Your task to perform on an android device: Open Youtube and go to "Your channel" Image 0: 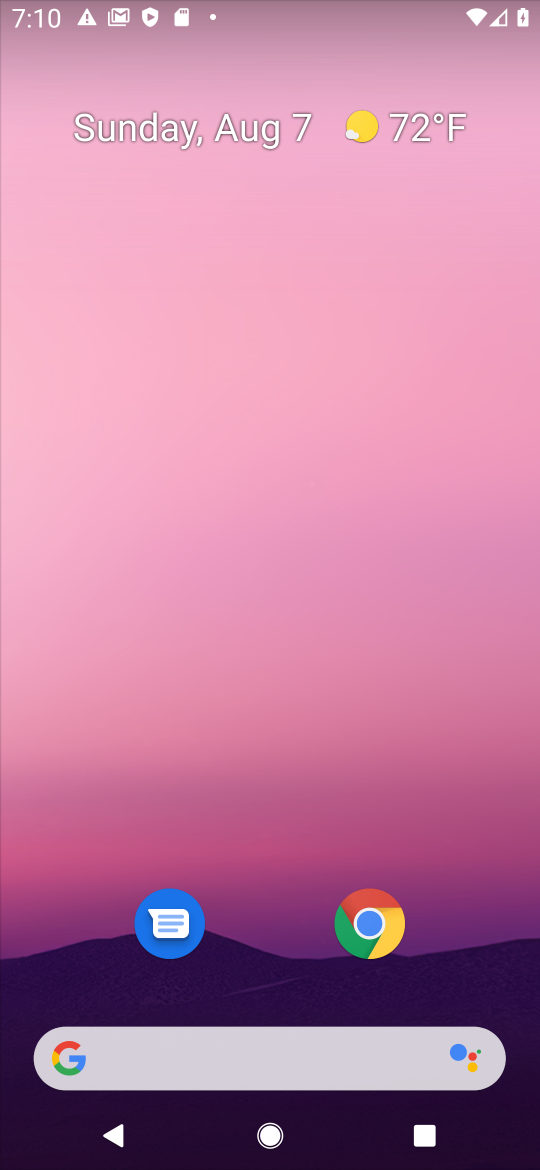
Step 0: drag from (503, 980) to (231, 45)
Your task to perform on an android device: Open Youtube and go to "Your channel" Image 1: 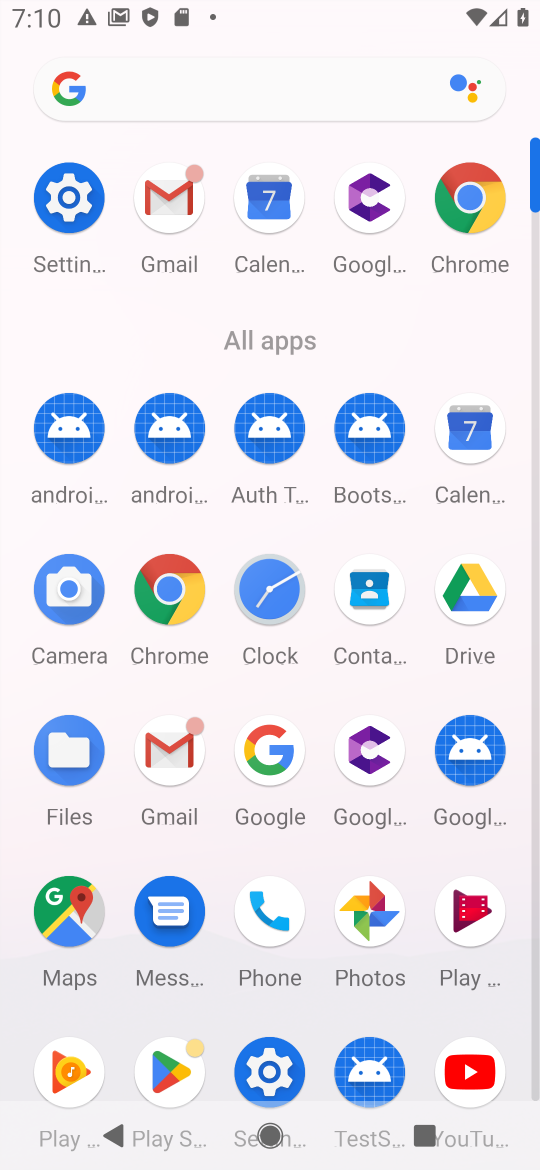
Step 1: click (471, 1063)
Your task to perform on an android device: Open Youtube and go to "Your channel" Image 2: 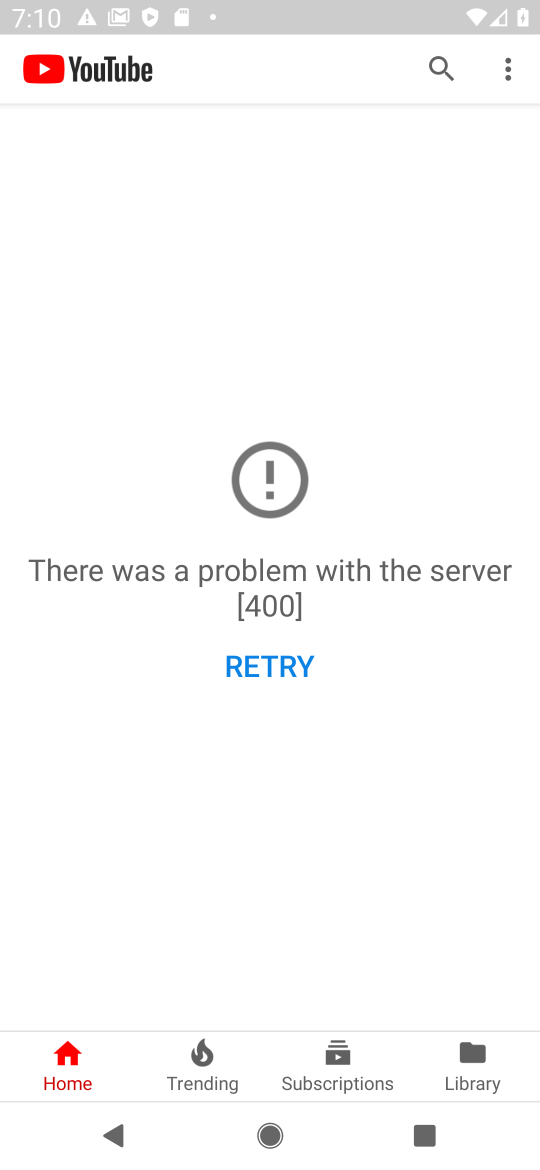
Step 2: click (278, 670)
Your task to perform on an android device: Open Youtube and go to "Your channel" Image 3: 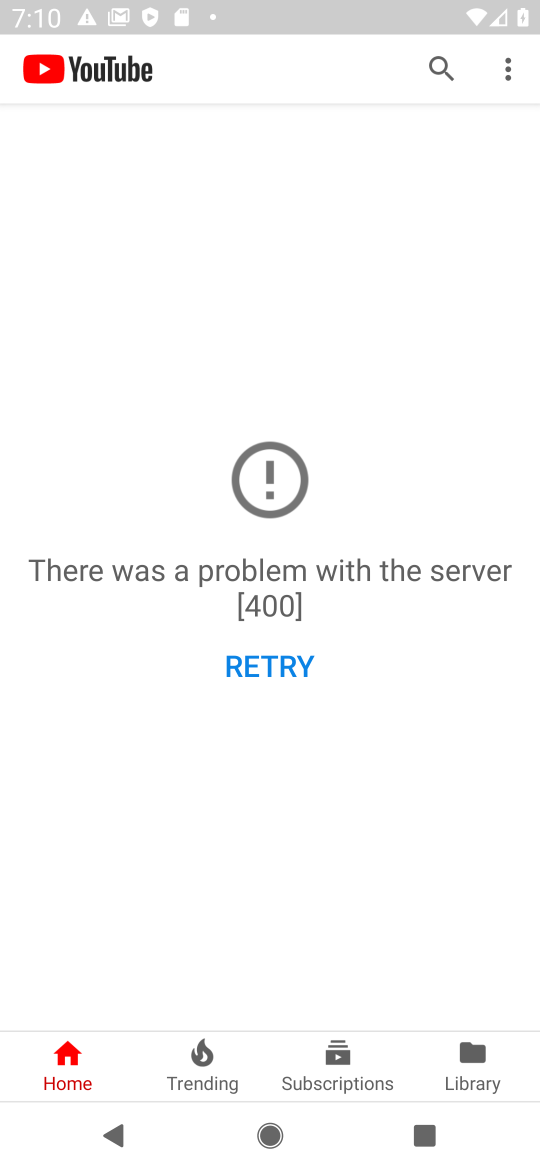
Step 3: task complete